Your task to perform on an android device: toggle location history Image 0: 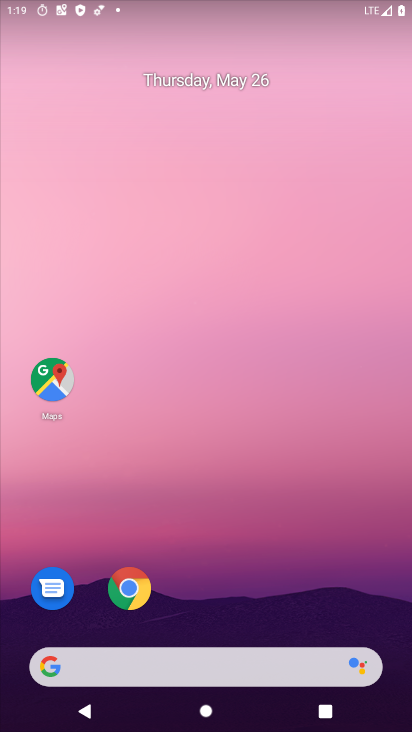
Step 0: drag from (396, 699) to (373, 220)
Your task to perform on an android device: toggle location history Image 1: 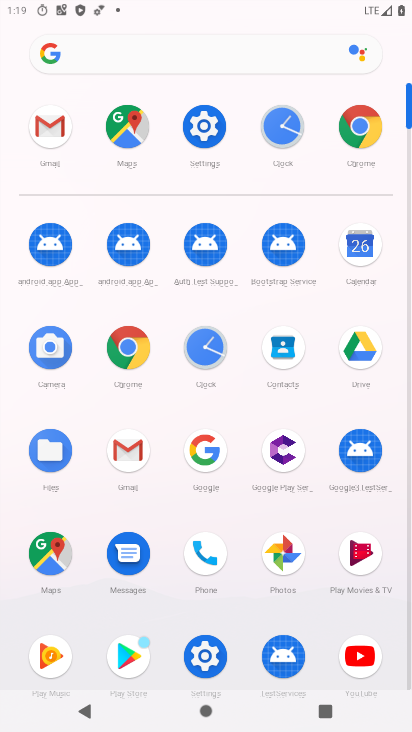
Step 1: click (201, 657)
Your task to perform on an android device: toggle location history Image 2: 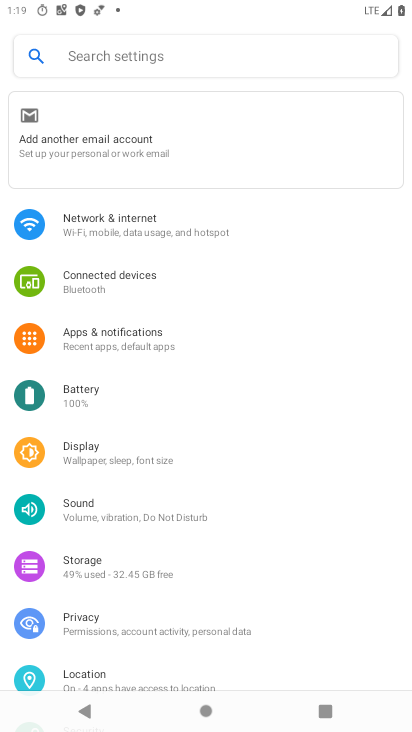
Step 2: click (94, 674)
Your task to perform on an android device: toggle location history Image 3: 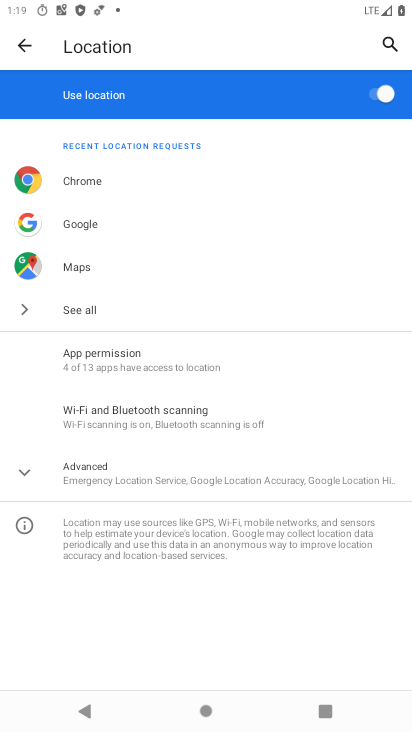
Step 3: click (21, 473)
Your task to perform on an android device: toggle location history Image 4: 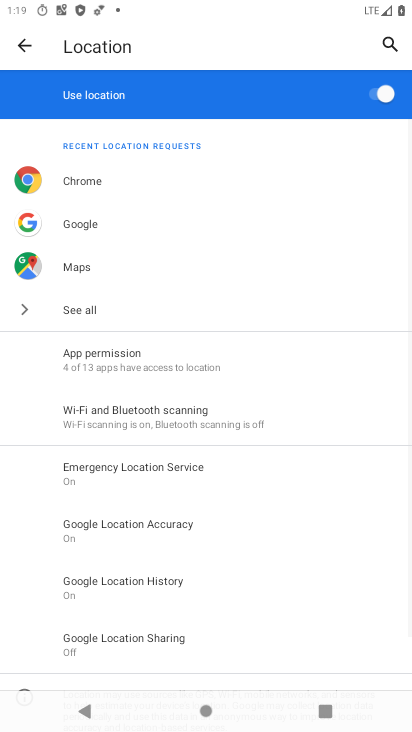
Step 4: drag from (271, 602) to (291, 271)
Your task to perform on an android device: toggle location history Image 5: 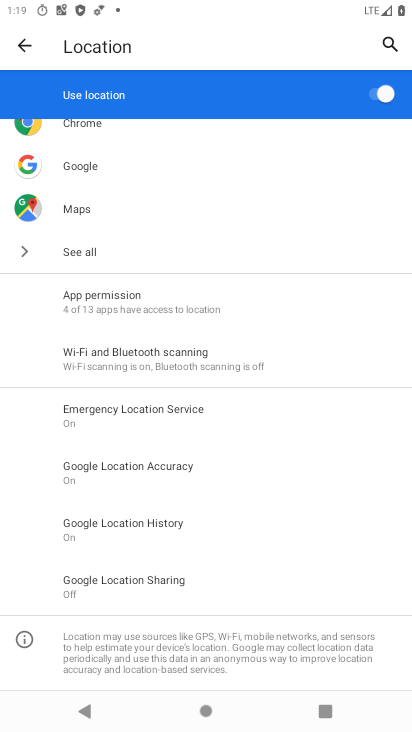
Step 5: click (118, 468)
Your task to perform on an android device: toggle location history Image 6: 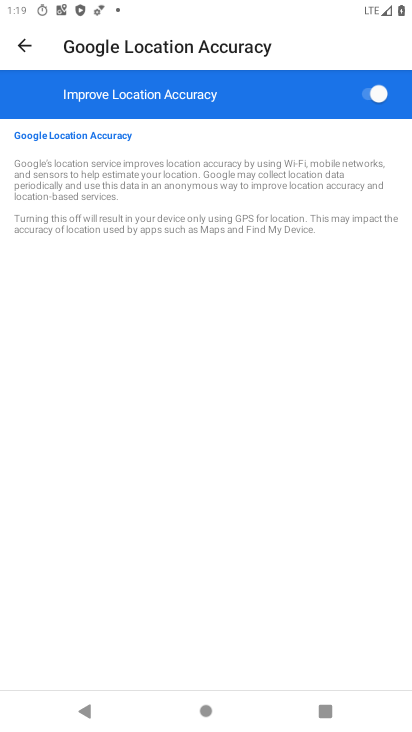
Step 6: click (19, 37)
Your task to perform on an android device: toggle location history Image 7: 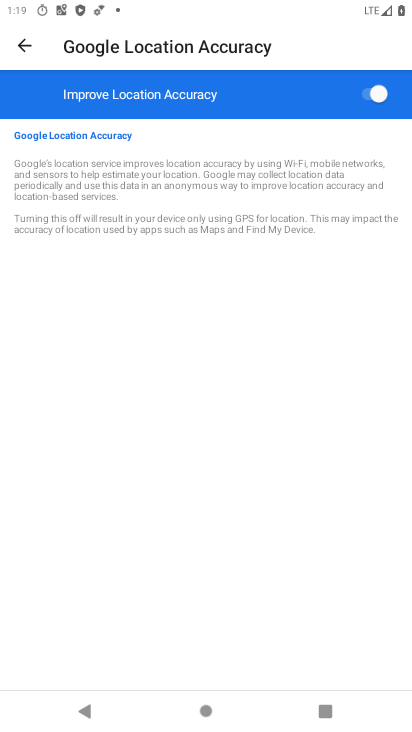
Step 7: click (19, 47)
Your task to perform on an android device: toggle location history Image 8: 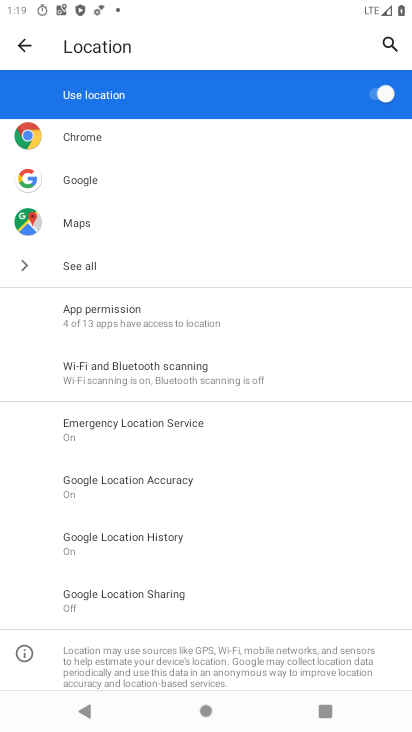
Step 8: click (114, 538)
Your task to perform on an android device: toggle location history Image 9: 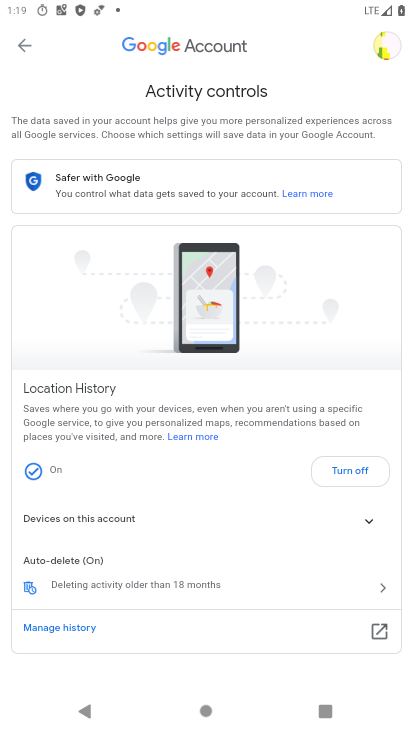
Step 9: click (336, 472)
Your task to perform on an android device: toggle location history Image 10: 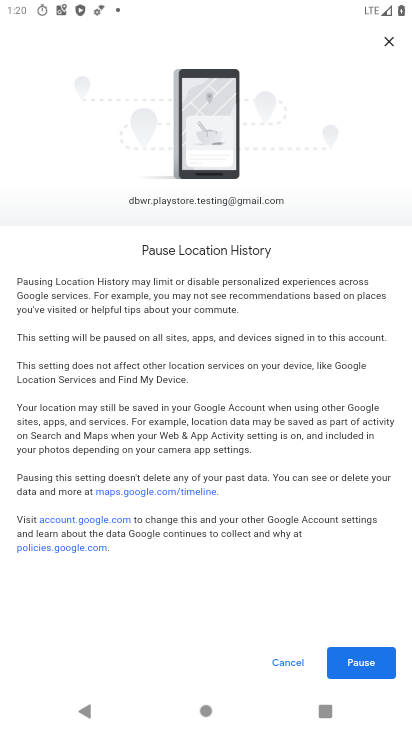
Step 10: click (343, 658)
Your task to perform on an android device: toggle location history Image 11: 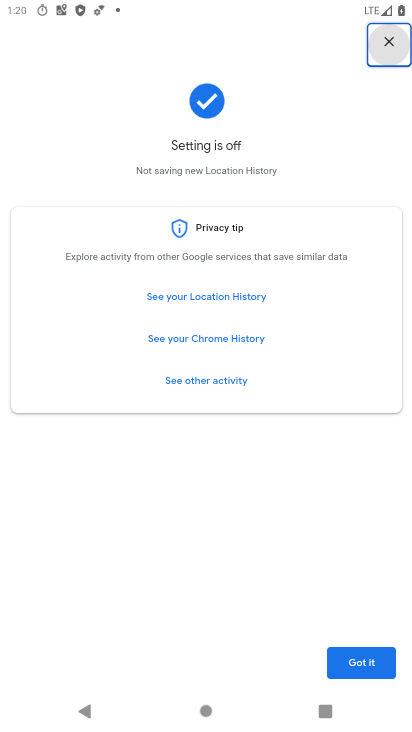
Step 11: click (347, 659)
Your task to perform on an android device: toggle location history Image 12: 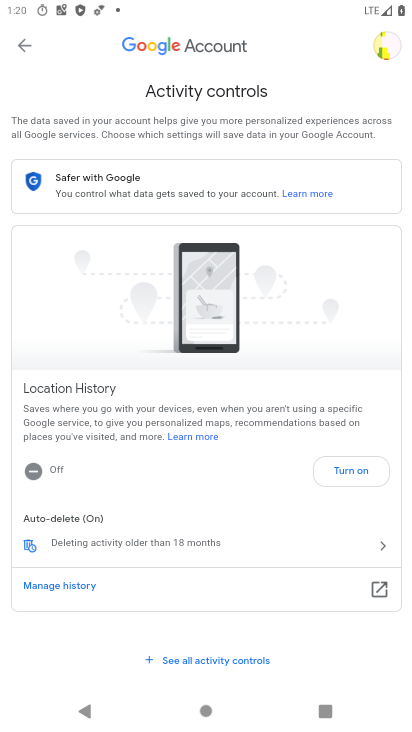
Step 12: task complete